Your task to perform on an android device: Go to Android settings Image 0: 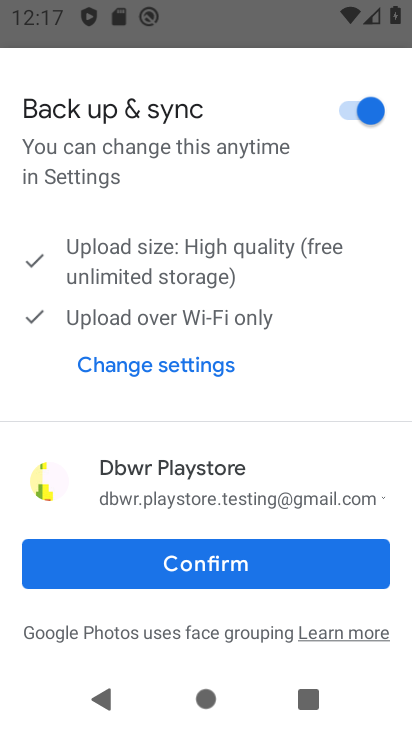
Step 0: press home button
Your task to perform on an android device: Go to Android settings Image 1: 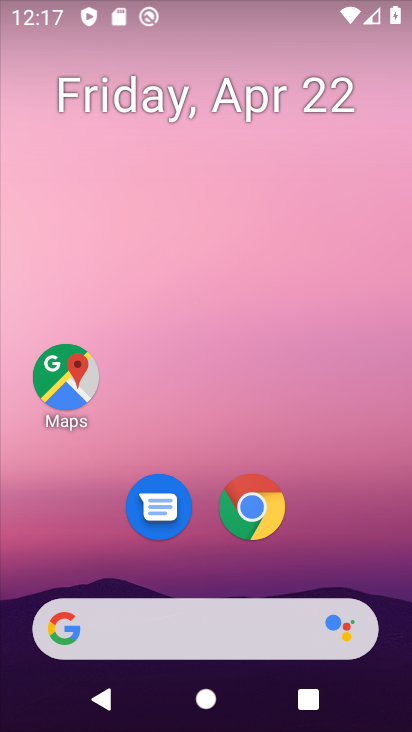
Step 1: drag from (348, 516) to (291, 101)
Your task to perform on an android device: Go to Android settings Image 2: 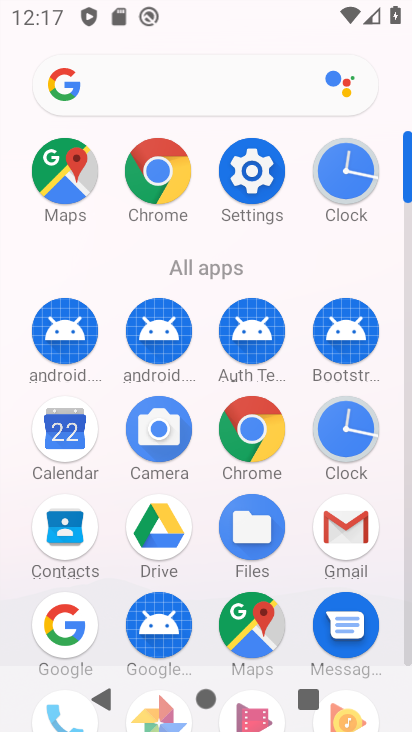
Step 2: click (249, 192)
Your task to perform on an android device: Go to Android settings Image 3: 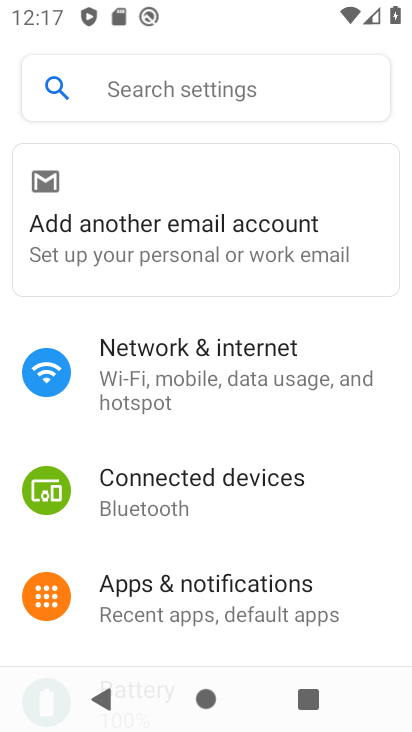
Step 3: drag from (317, 594) to (279, 161)
Your task to perform on an android device: Go to Android settings Image 4: 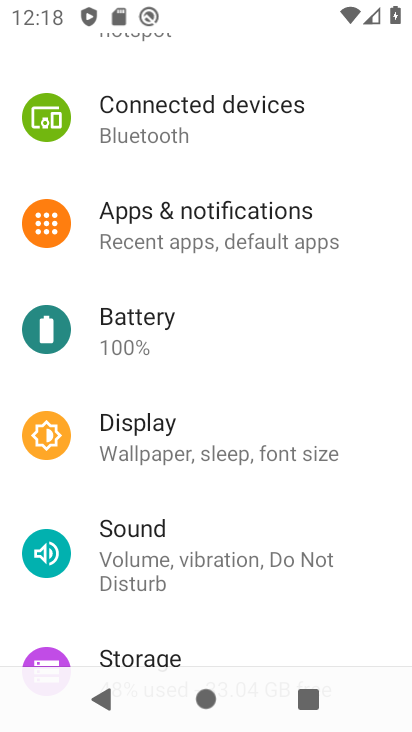
Step 4: drag from (199, 601) to (254, 205)
Your task to perform on an android device: Go to Android settings Image 5: 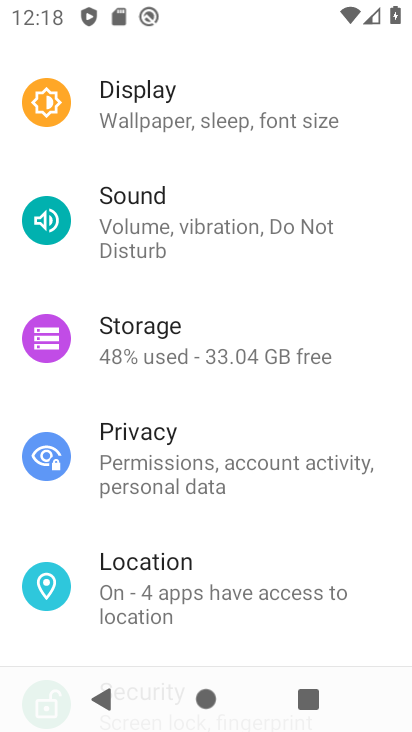
Step 5: drag from (181, 532) to (242, 120)
Your task to perform on an android device: Go to Android settings Image 6: 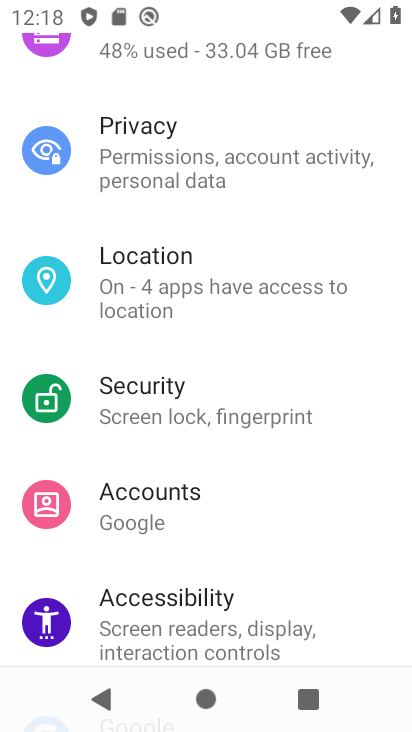
Step 6: drag from (231, 597) to (232, 185)
Your task to perform on an android device: Go to Android settings Image 7: 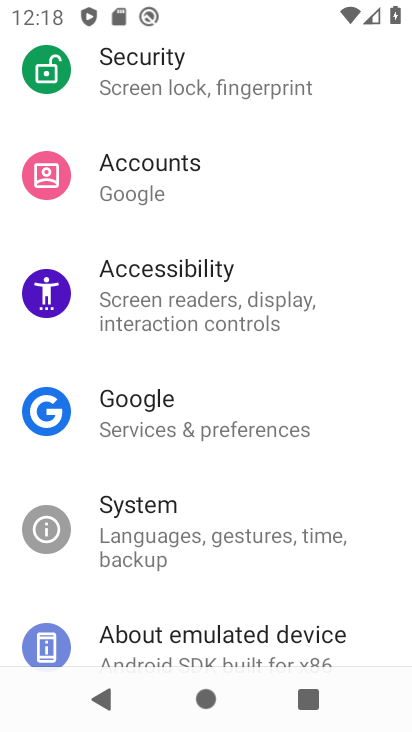
Step 7: click (172, 635)
Your task to perform on an android device: Go to Android settings Image 8: 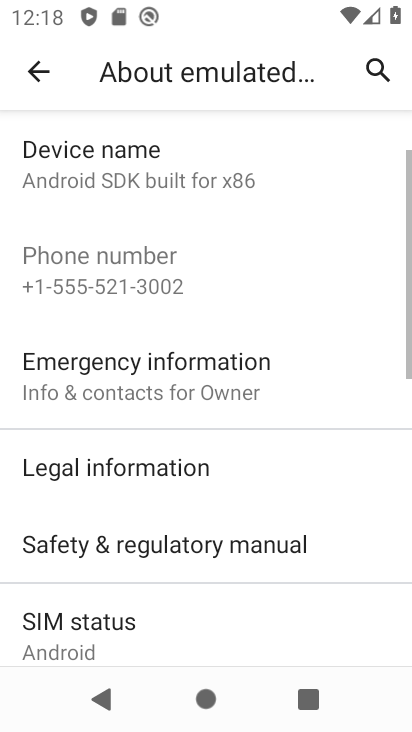
Step 8: drag from (170, 628) to (165, 149)
Your task to perform on an android device: Go to Android settings Image 9: 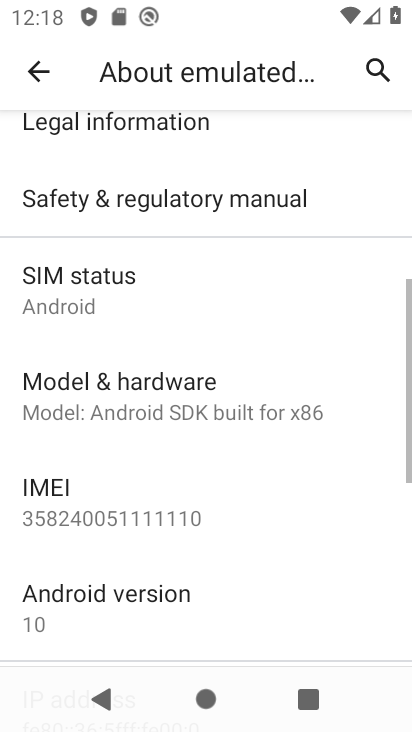
Step 9: drag from (154, 566) to (177, 216)
Your task to perform on an android device: Go to Android settings Image 10: 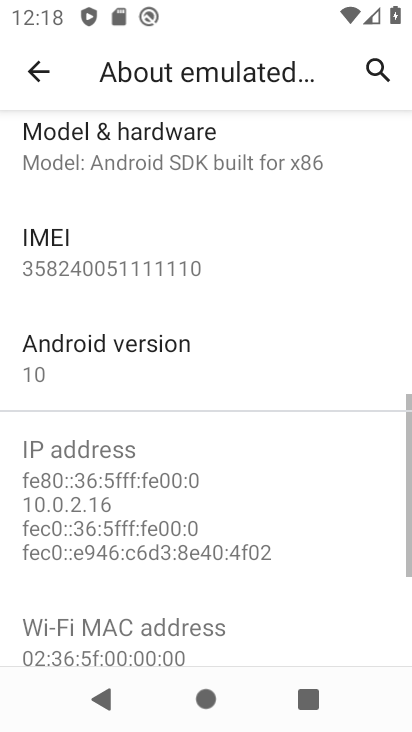
Step 10: click (192, 547)
Your task to perform on an android device: Go to Android settings Image 11: 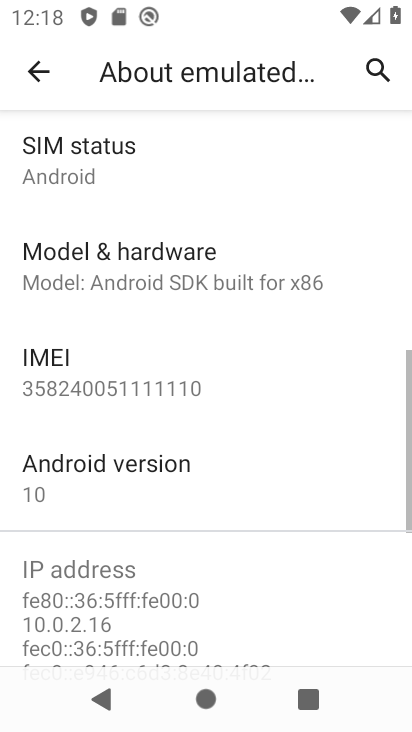
Step 11: task complete